Your task to perform on an android device: Go to Maps Image 0: 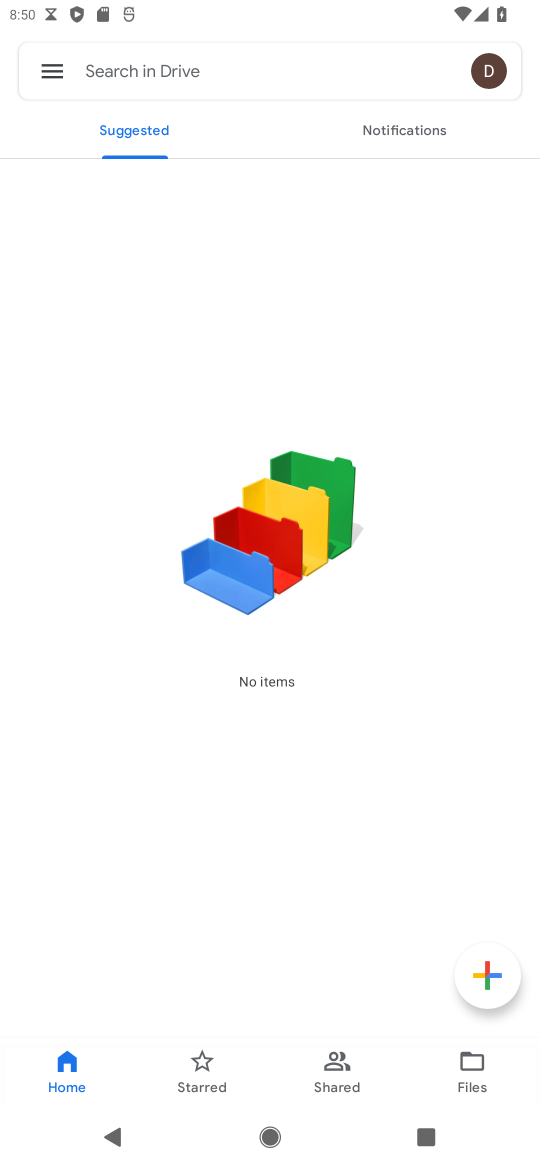
Step 0: press home button
Your task to perform on an android device: Go to Maps Image 1: 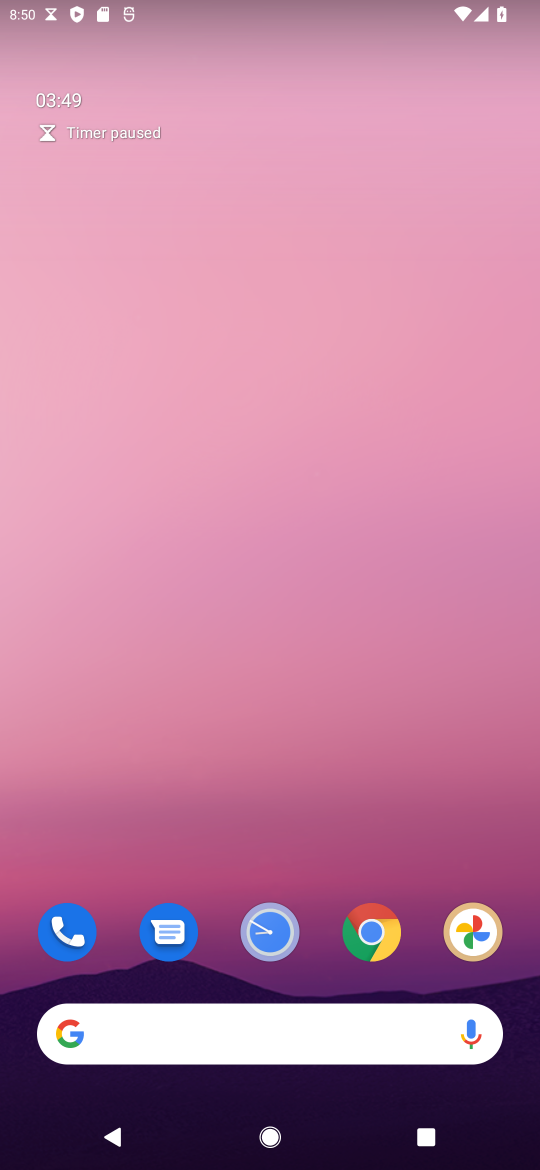
Step 1: drag from (300, 1055) to (344, 344)
Your task to perform on an android device: Go to Maps Image 2: 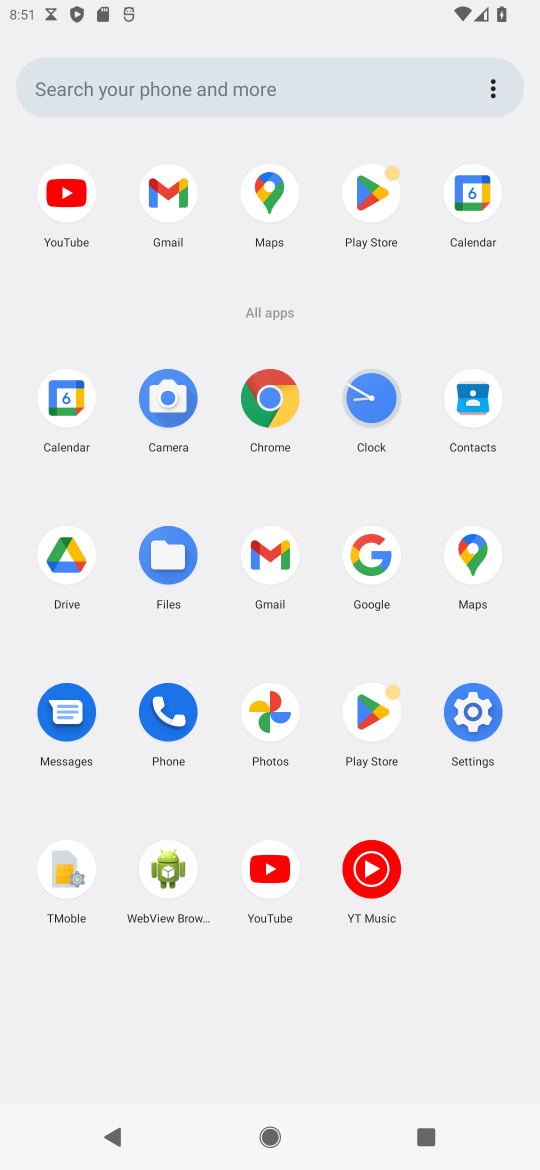
Step 2: click (271, 191)
Your task to perform on an android device: Go to Maps Image 3: 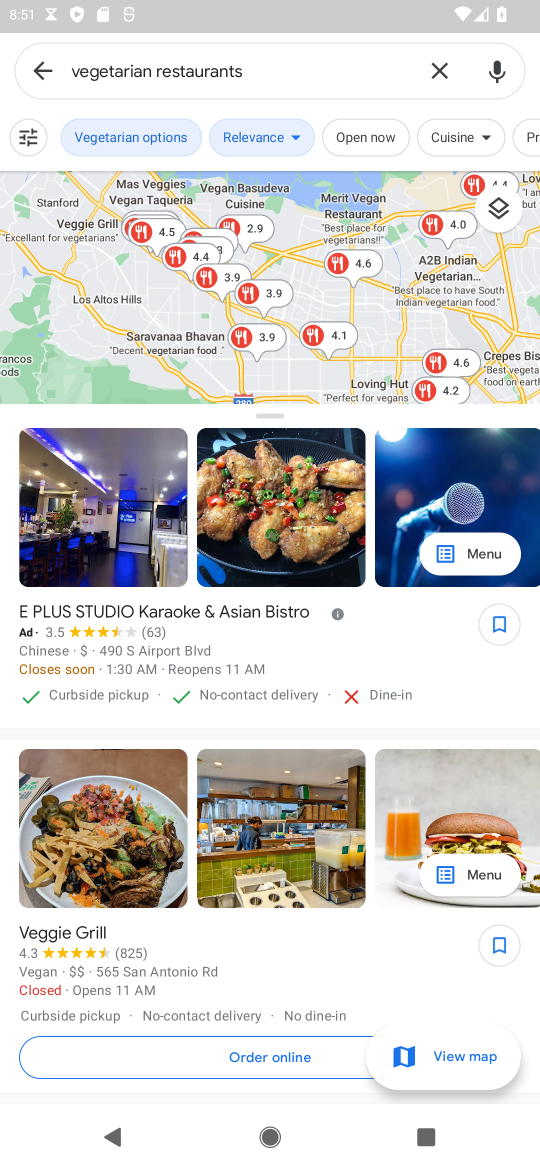
Step 3: task complete